Your task to perform on an android device: make emails show in primary in the gmail app Image 0: 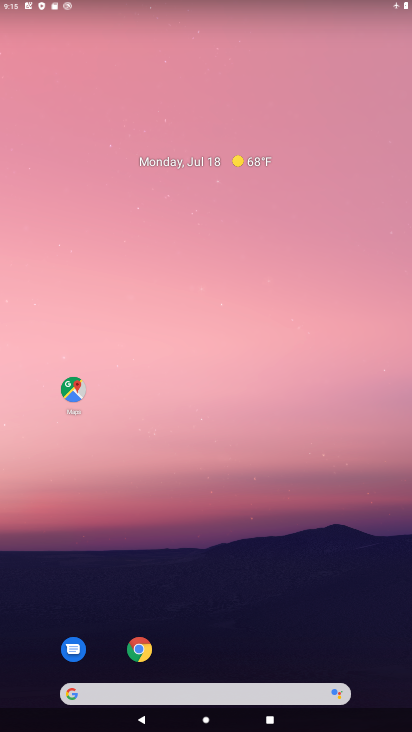
Step 0: drag from (223, 679) to (234, 206)
Your task to perform on an android device: make emails show in primary in the gmail app Image 1: 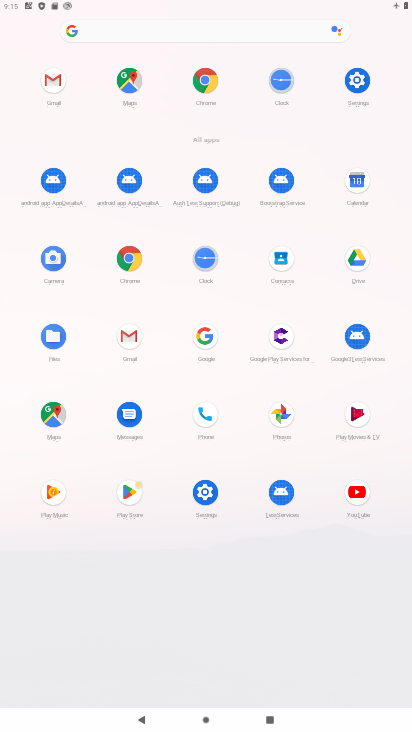
Step 1: click (54, 80)
Your task to perform on an android device: make emails show in primary in the gmail app Image 2: 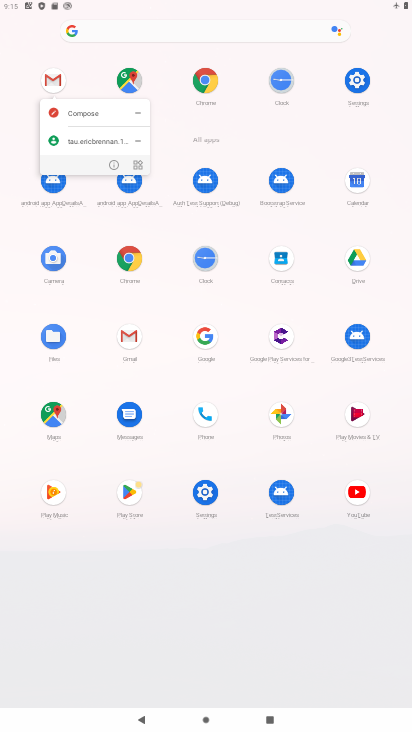
Step 2: click (54, 80)
Your task to perform on an android device: make emails show in primary in the gmail app Image 3: 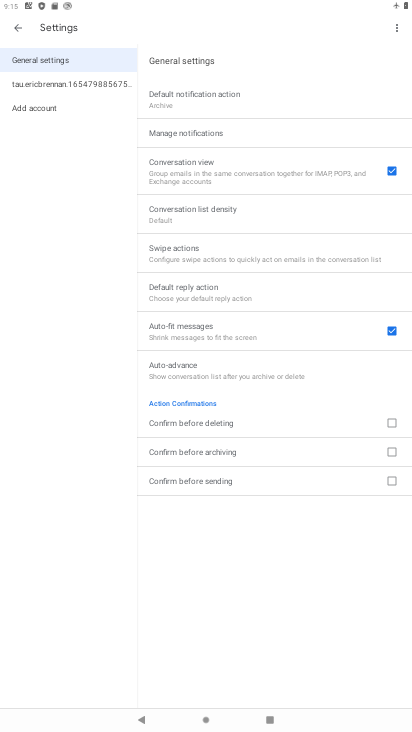
Step 3: click (58, 86)
Your task to perform on an android device: make emails show in primary in the gmail app Image 4: 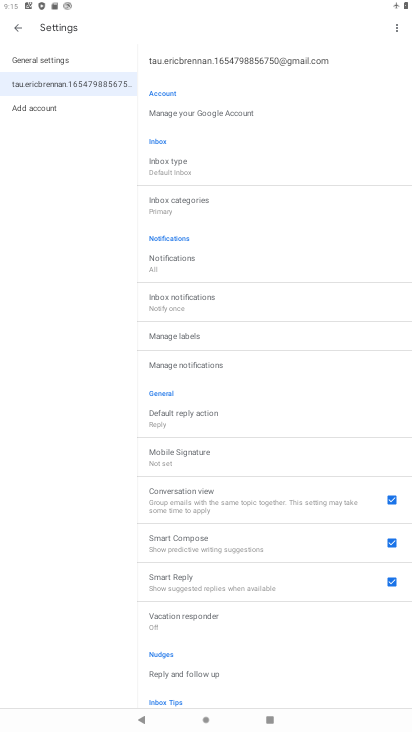
Step 4: click (181, 204)
Your task to perform on an android device: make emails show in primary in the gmail app Image 5: 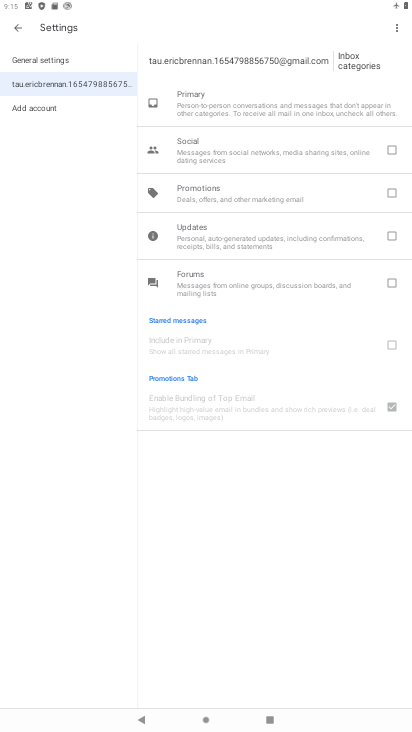
Step 5: task complete